Your task to perform on an android device: Open the phone app and click the voicemail tab. Image 0: 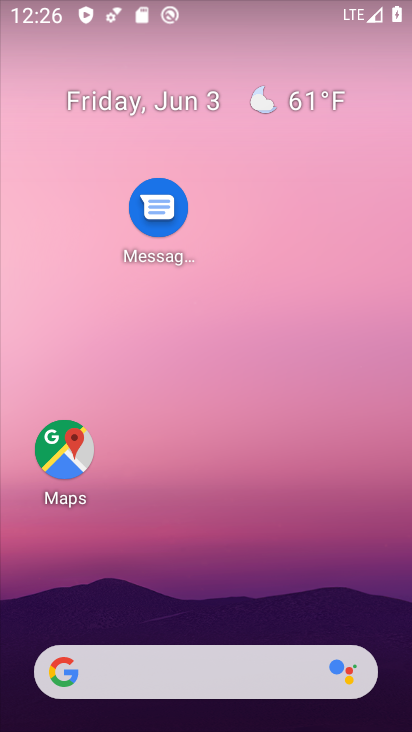
Step 0: drag from (182, 643) to (213, 29)
Your task to perform on an android device: Open the phone app and click the voicemail tab. Image 1: 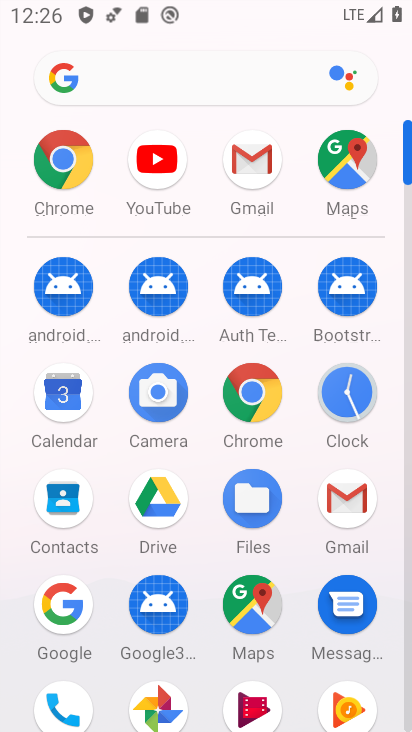
Step 1: click (54, 696)
Your task to perform on an android device: Open the phone app and click the voicemail tab. Image 2: 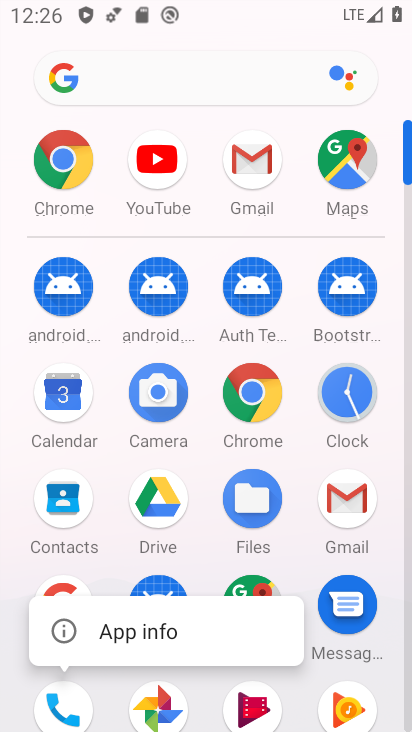
Step 2: click (72, 696)
Your task to perform on an android device: Open the phone app and click the voicemail tab. Image 3: 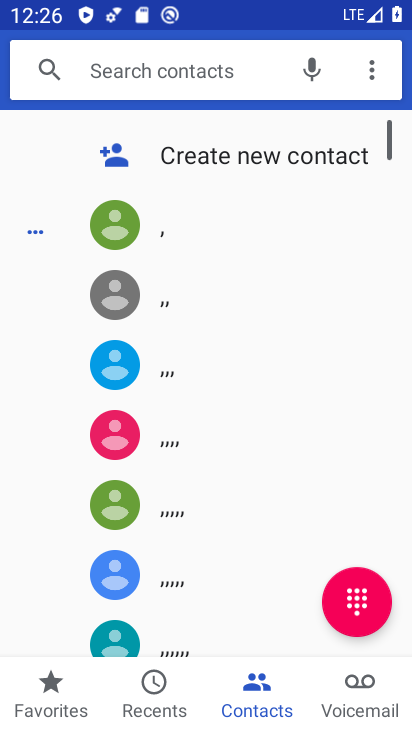
Step 3: click (360, 683)
Your task to perform on an android device: Open the phone app and click the voicemail tab. Image 4: 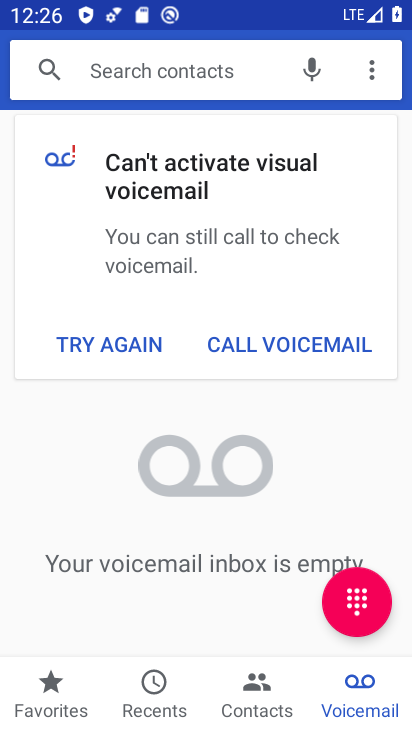
Step 4: task complete